Your task to perform on an android device: uninstall "Spotify: Music and Podcasts" Image 0: 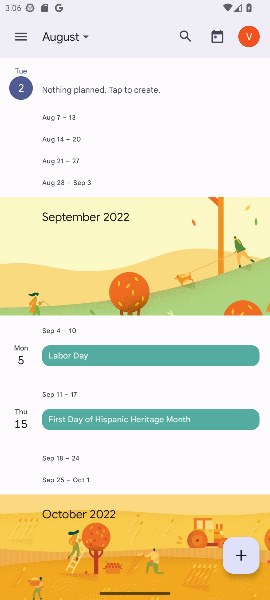
Step 0: press home button
Your task to perform on an android device: uninstall "Spotify: Music and Podcasts" Image 1: 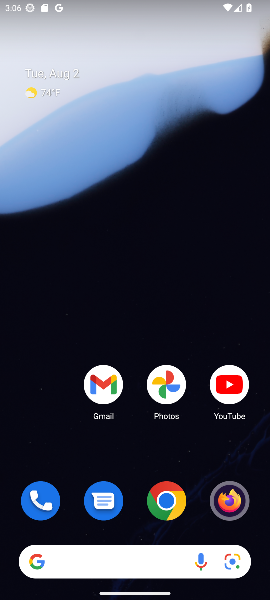
Step 1: drag from (126, 450) to (125, 52)
Your task to perform on an android device: uninstall "Spotify: Music and Podcasts" Image 2: 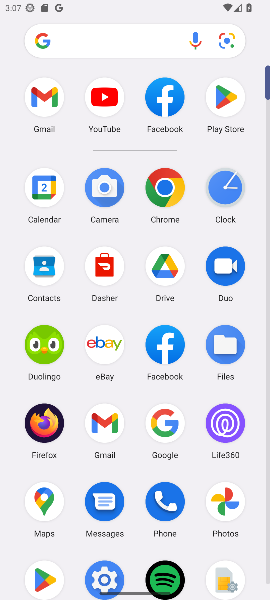
Step 2: click (239, 101)
Your task to perform on an android device: uninstall "Spotify: Music and Podcasts" Image 3: 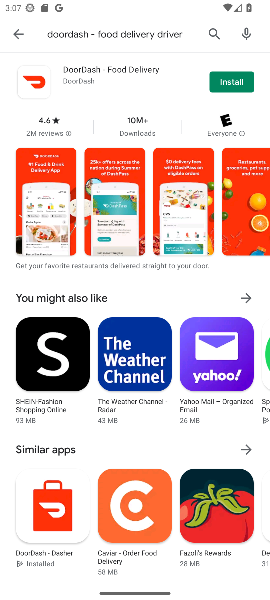
Step 3: click (218, 34)
Your task to perform on an android device: uninstall "Spotify: Music and Podcasts" Image 4: 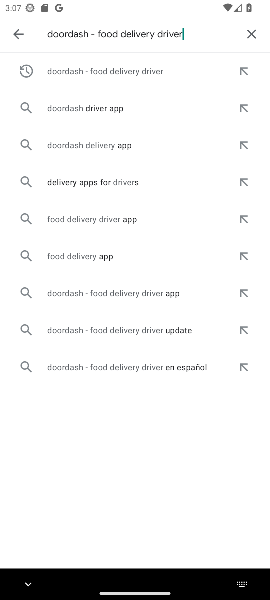
Step 4: click (249, 33)
Your task to perform on an android device: uninstall "Spotify: Music and Podcasts" Image 5: 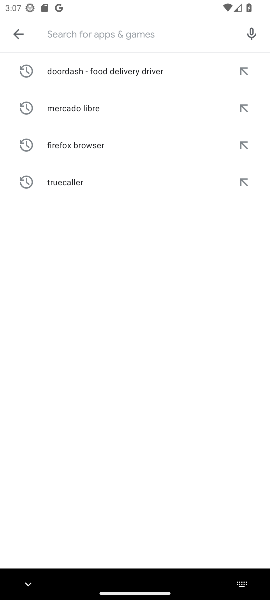
Step 5: type "Spotify: Music and Podcasts"
Your task to perform on an android device: uninstall "Spotify: Music and Podcasts" Image 6: 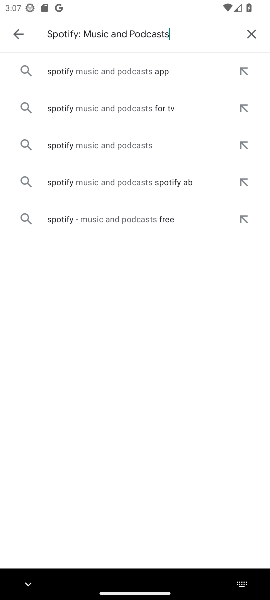
Step 6: click (90, 70)
Your task to perform on an android device: uninstall "Spotify: Music and Podcasts" Image 7: 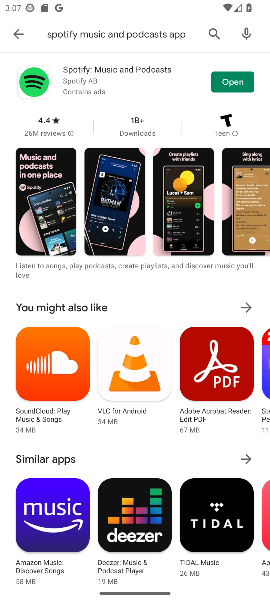
Step 7: click (63, 77)
Your task to perform on an android device: uninstall "Spotify: Music and Podcasts" Image 8: 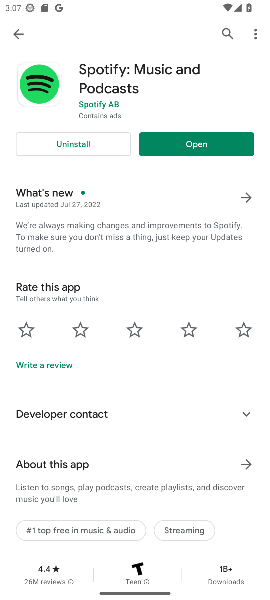
Step 8: click (52, 142)
Your task to perform on an android device: uninstall "Spotify: Music and Podcasts" Image 9: 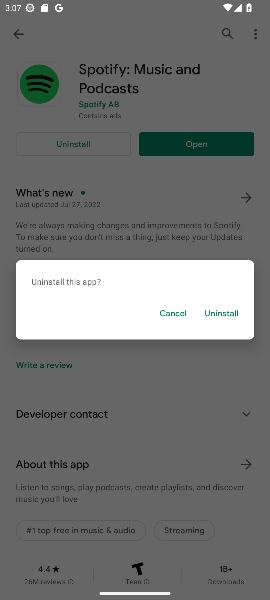
Step 9: click (208, 313)
Your task to perform on an android device: uninstall "Spotify: Music and Podcasts" Image 10: 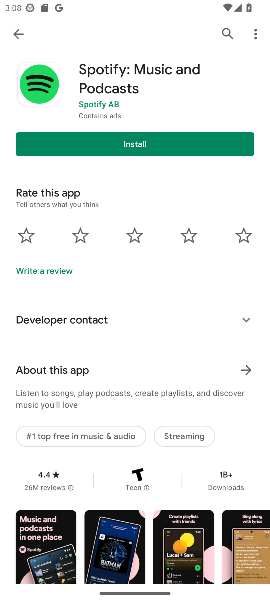
Step 10: task complete